Your task to perform on an android device: Open settings Image 0: 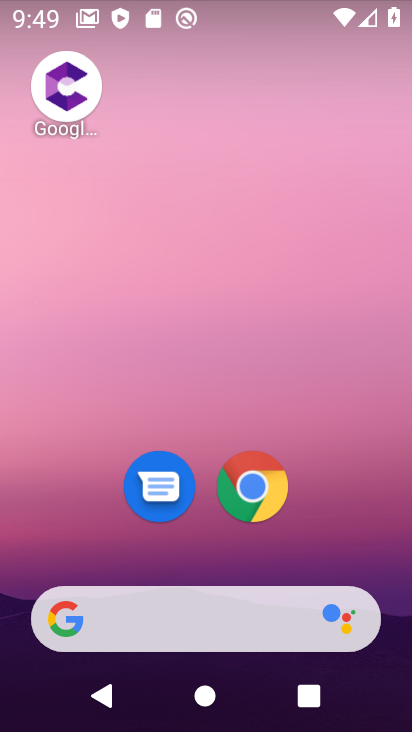
Step 0: drag from (256, 649) to (315, 259)
Your task to perform on an android device: Open settings Image 1: 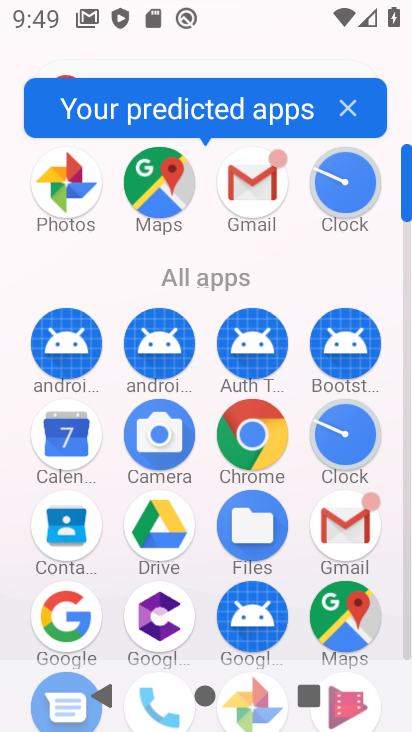
Step 1: drag from (289, 478) to (284, 172)
Your task to perform on an android device: Open settings Image 2: 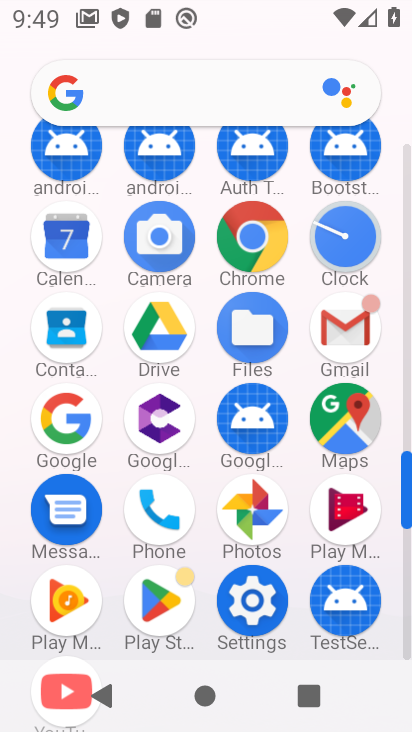
Step 2: click (244, 593)
Your task to perform on an android device: Open settings Image 3: 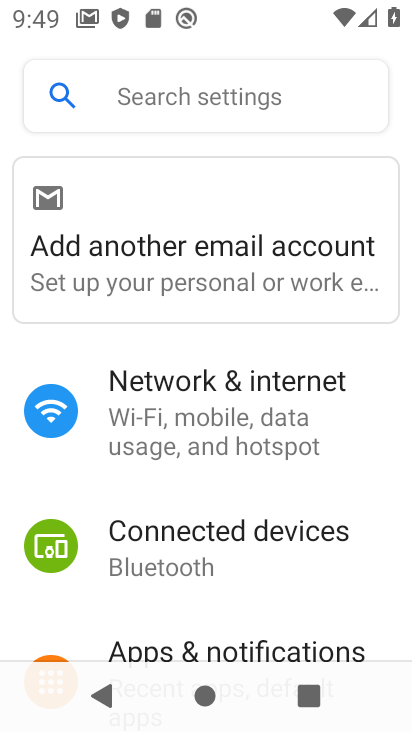
Step 3: task complete